Your task to perform on an android device: Is it going to rain tomorrow? Image 0: 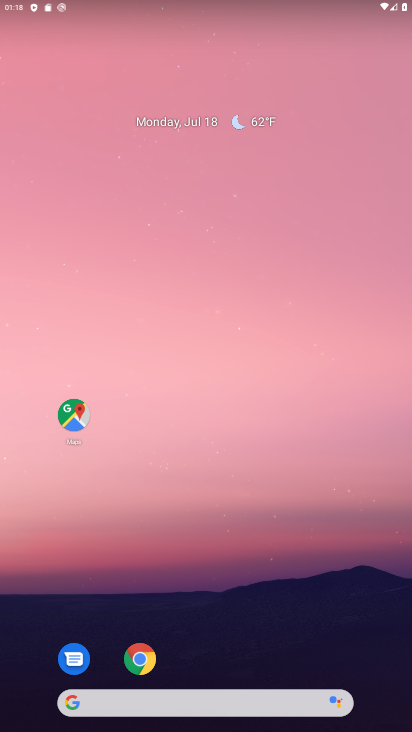
Step 0: drag from (298, 627) to (217, 0)
Your task to perform on an android device: Is it going to rain tomorrow? Image 1: 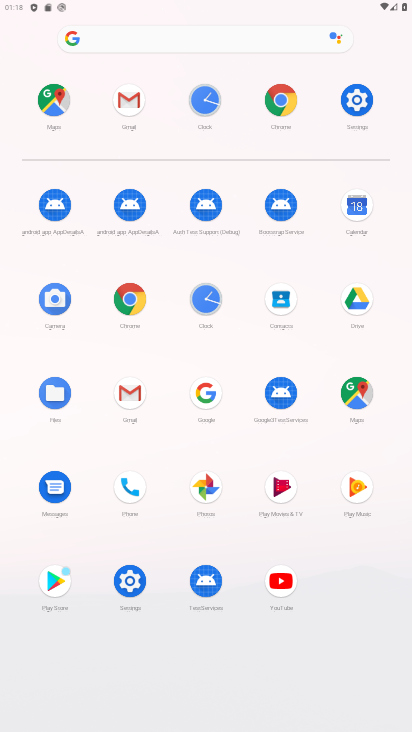
Step 1: click (281, 105)
Your task to perform on an android device: Is it going to rain tomorrow? Image 2: 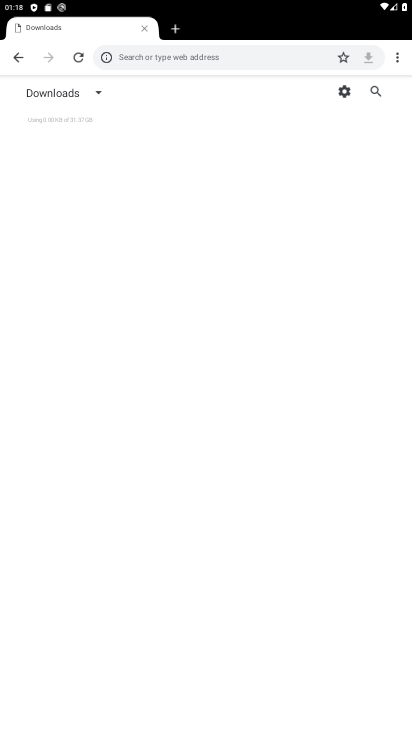
Step 2: click (242, 62)
Your task to perform on an android device: Is it going to rain tomorrow? Image 3: 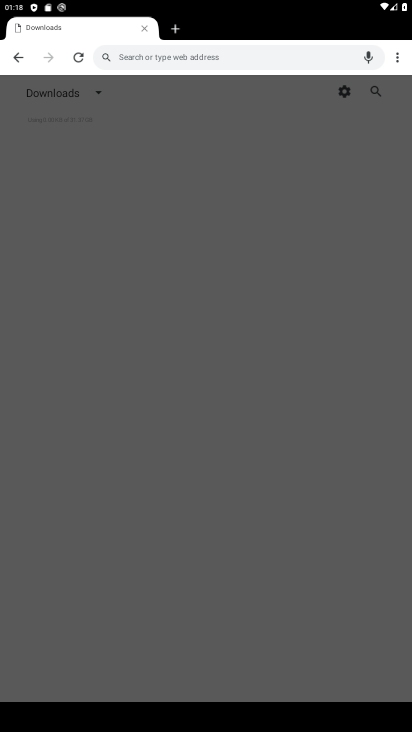
Step 3: type "weather"
Your task to perform on an android device: Is it going to rain tomorrow? Image 4: 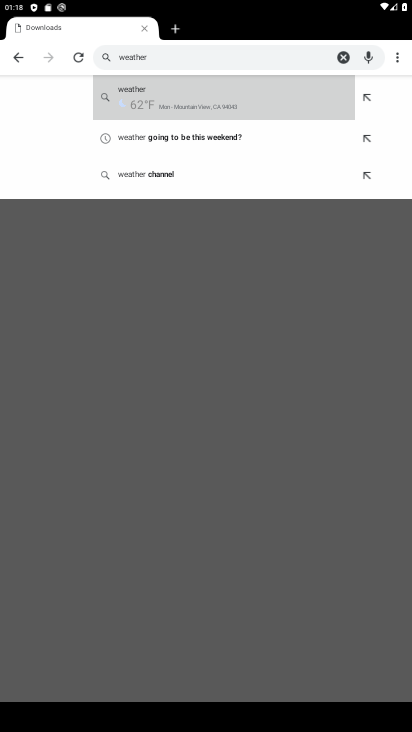
Step 4: click (176, 114)
Your task to perform on an android device: Is it going to rain tomorrow? Image 5: 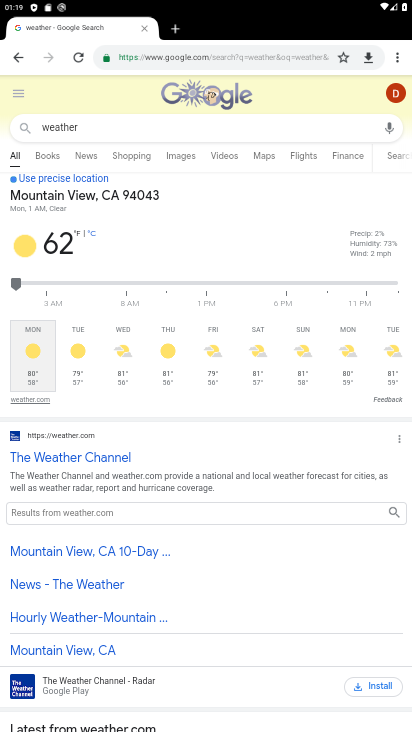
Step 5: click (84, 344)
Your task to perform on an android device: Is it going to rain tomorrow? Image 6: 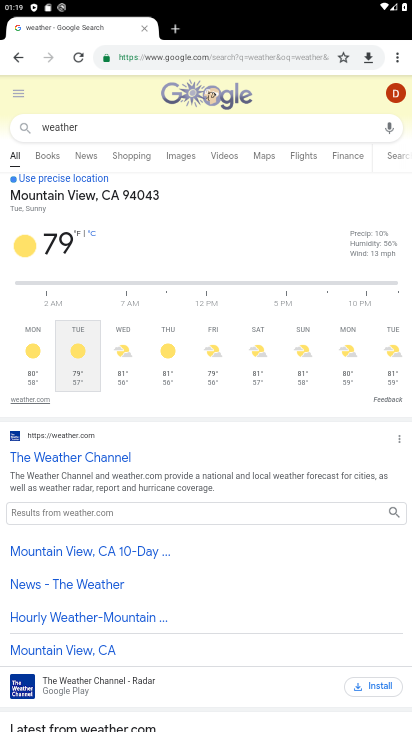
Step 6: task complete